Your task to perform on an android device: Open the calendar and show me this week's events? Image 0: 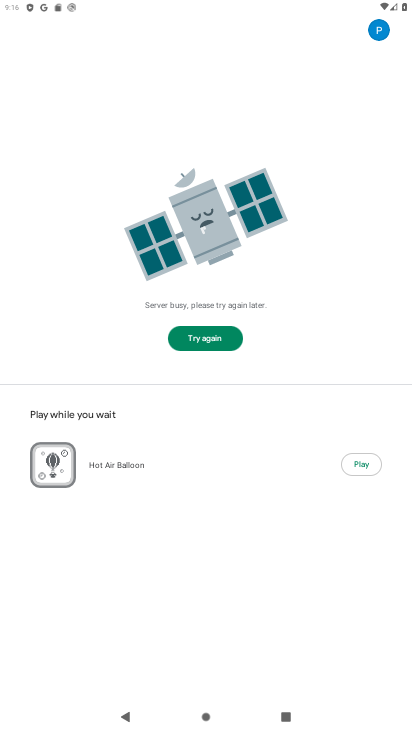
Step 0: press home button
Your task to perform on an android device: Open the calendar and show me this week's events? Image 1: 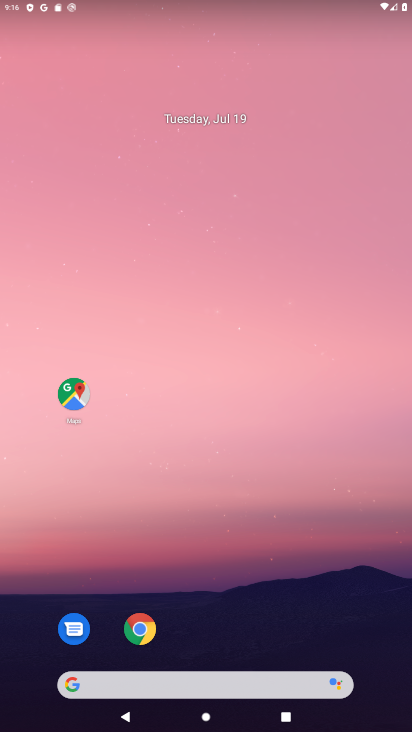
Step 1: drag from (267, 563) to (388, 2)
Your task to perform on an android device: Open the calendar and show me this week's events? Image 2: 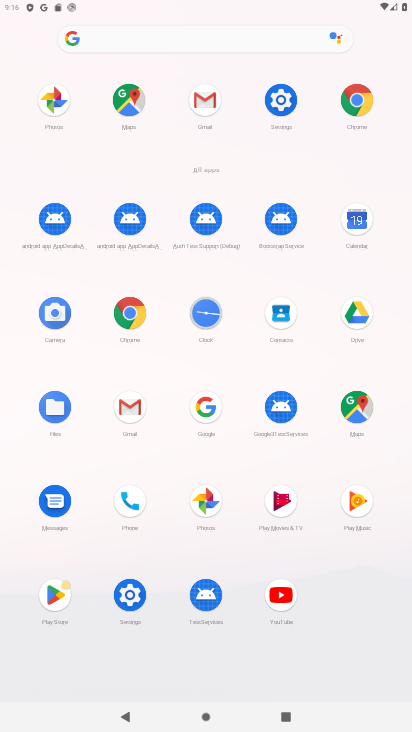
Step 2: click (380, 221)
Your task to perform on an android device: Open the calendar and show me this week's events? Image 3: 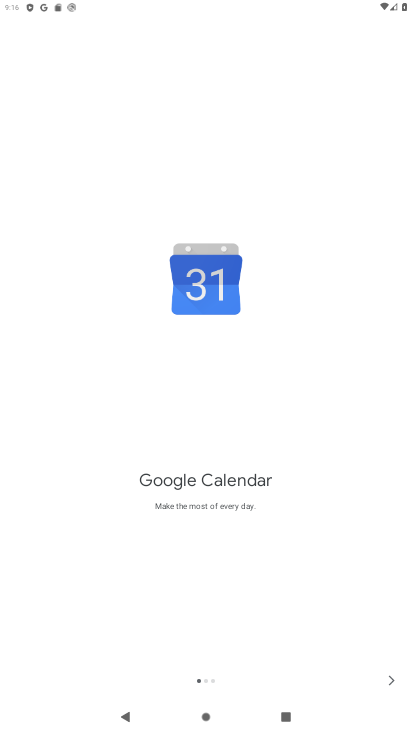
Step 3: click (393, 678)
Your task to perform on an android device: Open the calendar and show me this week's events? Image 4: 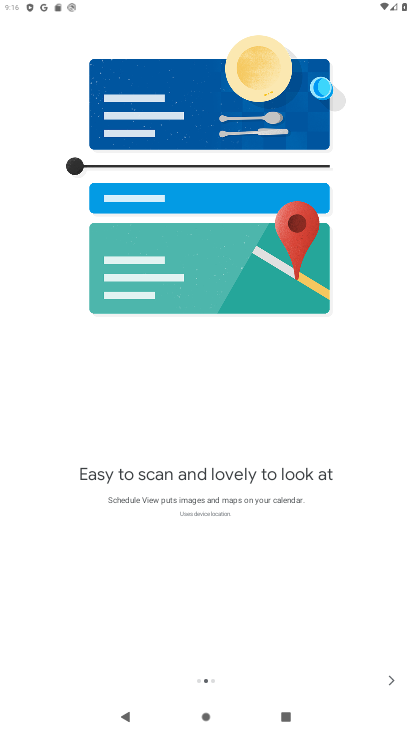
Step 4: click (393, 678)
Your task to perform on an android device: Open the calendar and show me this week's events? Image 5: 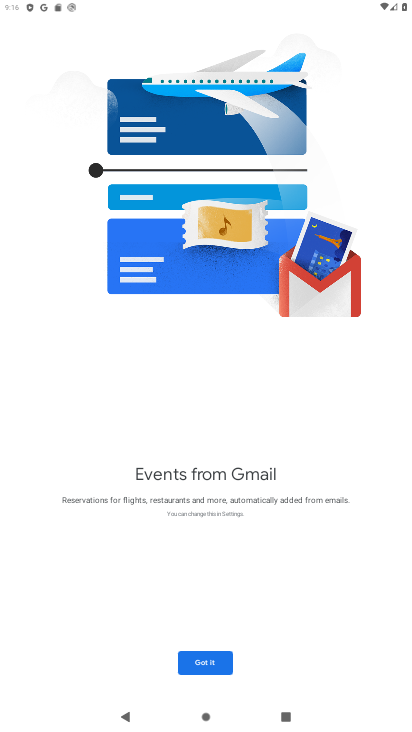
Step 5: click (217, 665)
Your task to perform on an android device: Open the calendar and show me this week's events? Image 6: 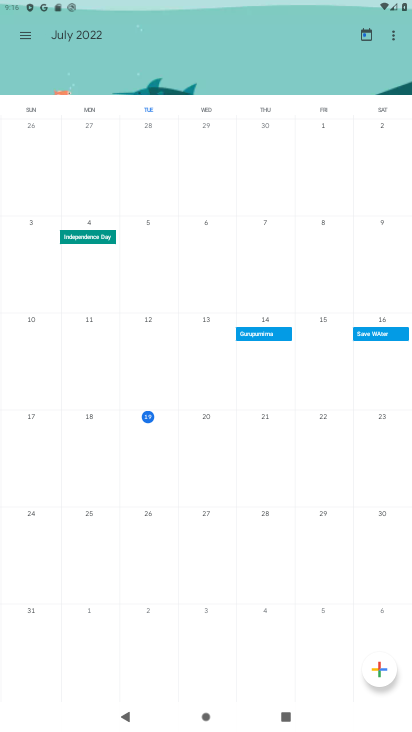
Step 6: click (138, 438)
Your task to perform on an android device: Open the calendar and show me this week's events? Image 7: 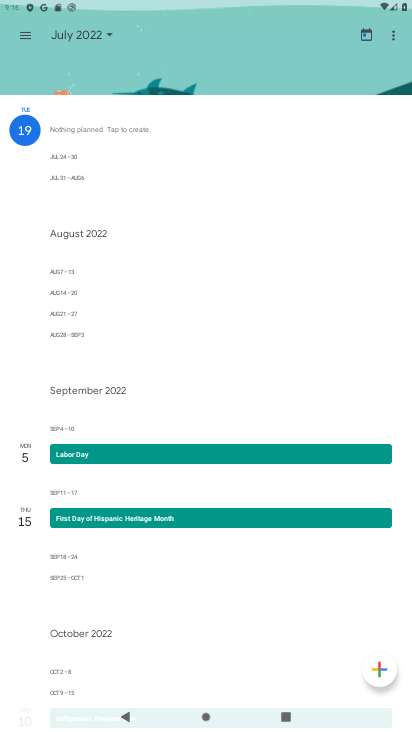
Step 7: task complete